Your task to perform on an android device: Clear all items from cart on bestbuy. Search for "amazon basics triple a" on bestbuy, select the first entry, and add it to the cart. Image 0: 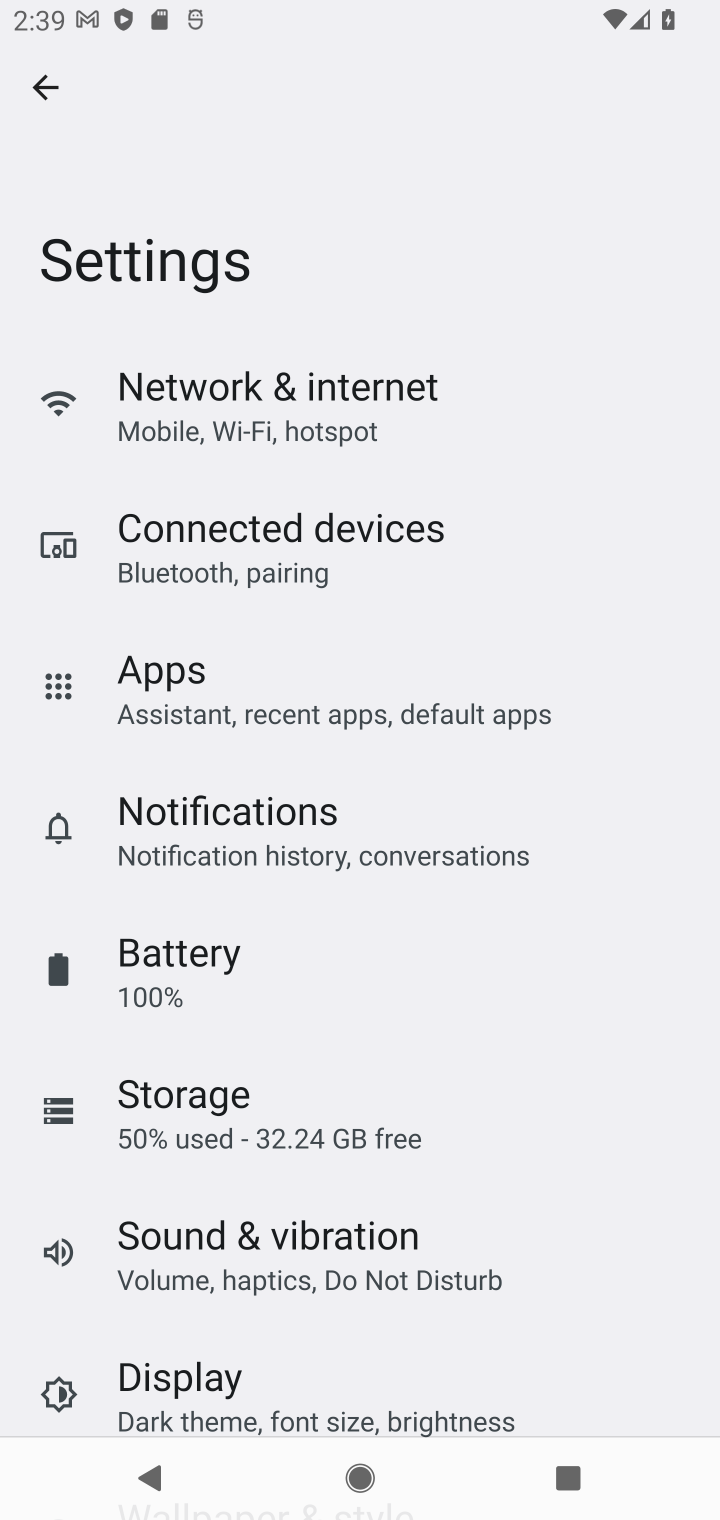
Step 0: press home button
Your task to perform on an android device: Clear all items from cart on bestbuy. Search for "amazon basics triple a" on bestbuy, select the first entry, and add it to the cart. Image 1: 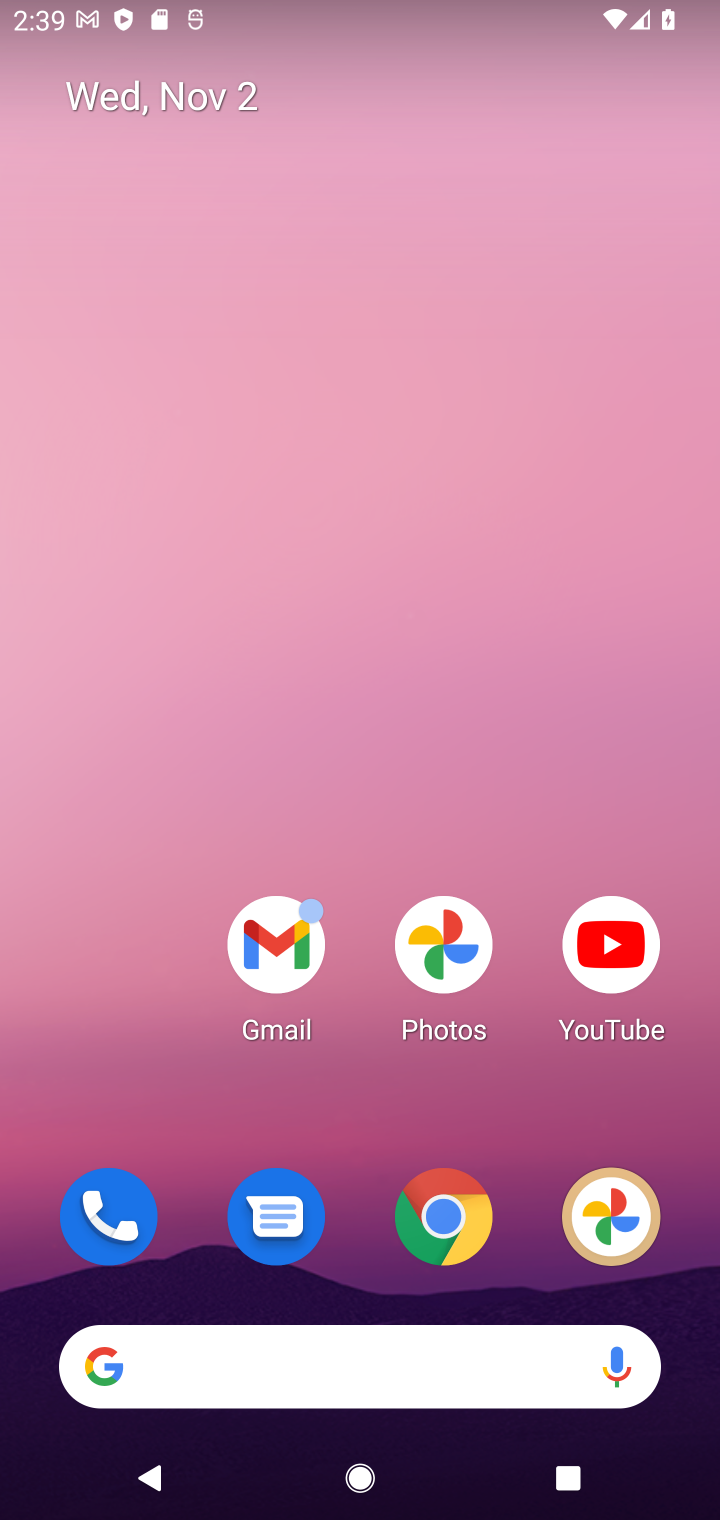
Step 1: click (450, 1212)
Your task to perform on an android device: Clear all items from cart on bestbuy. Search for "amazon basics triple a" on bestbuy, select the first entry, and add it to the cart. Image 2: 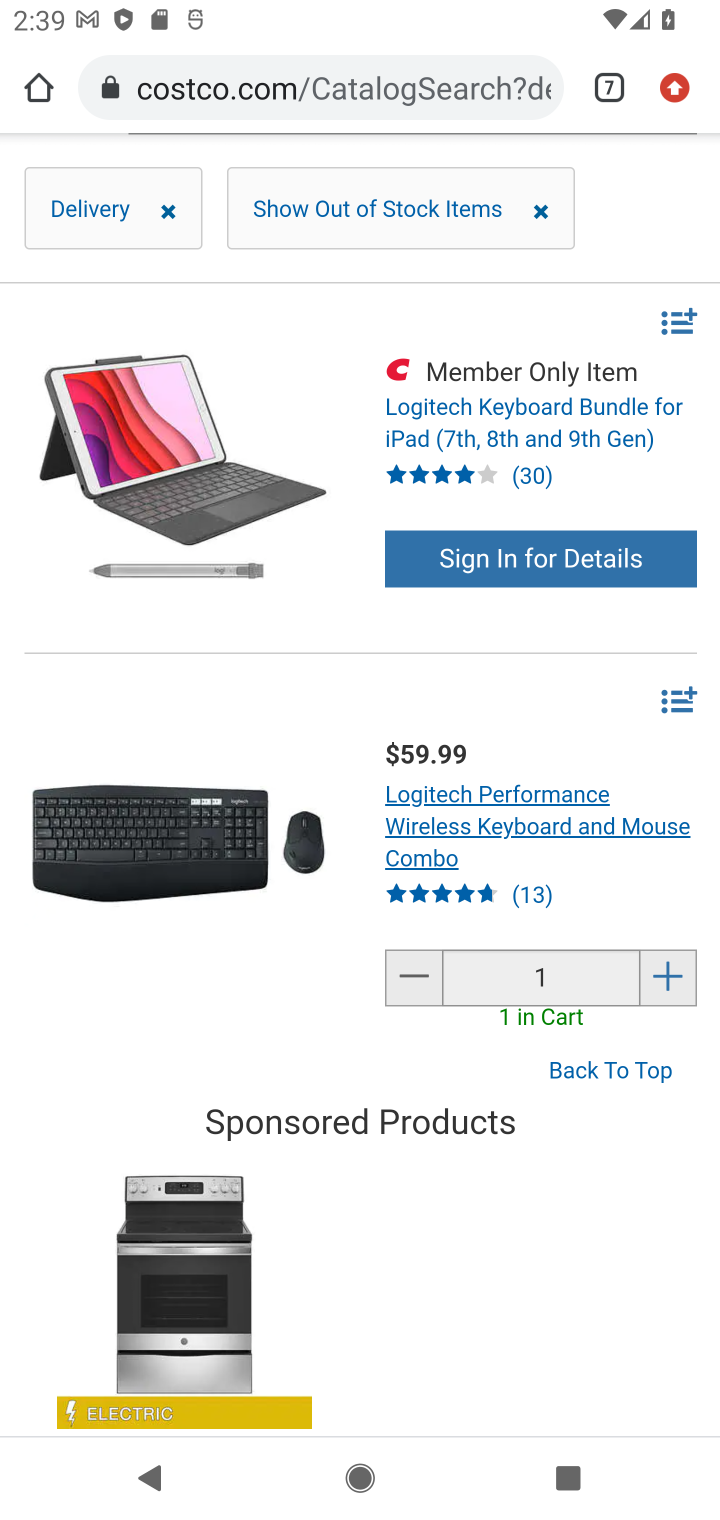
Step 2: click (612, 83)
Your task to perform on an android device: Clear all items from cart on bestbuy. Search for "amazon basics triple a" on bestbuy, select the first entry, and add it to the cart. Image 3: 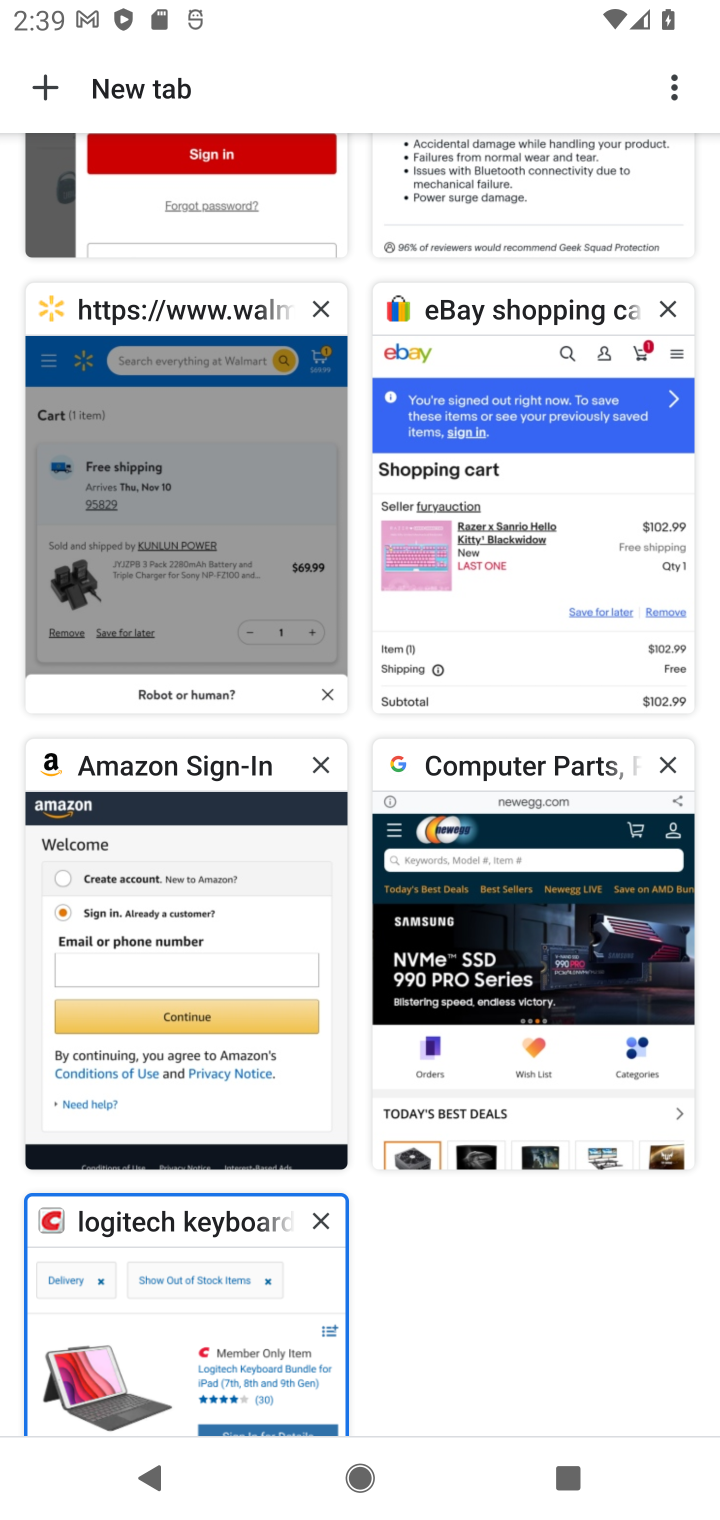
Step 3: click (491, 192)
Your task to perform on an android device: Clear all items from cart on bestbuy. Search for "amazon basics triple a" on bestbuy, select the first entry, and add it to the cart. Image 4: 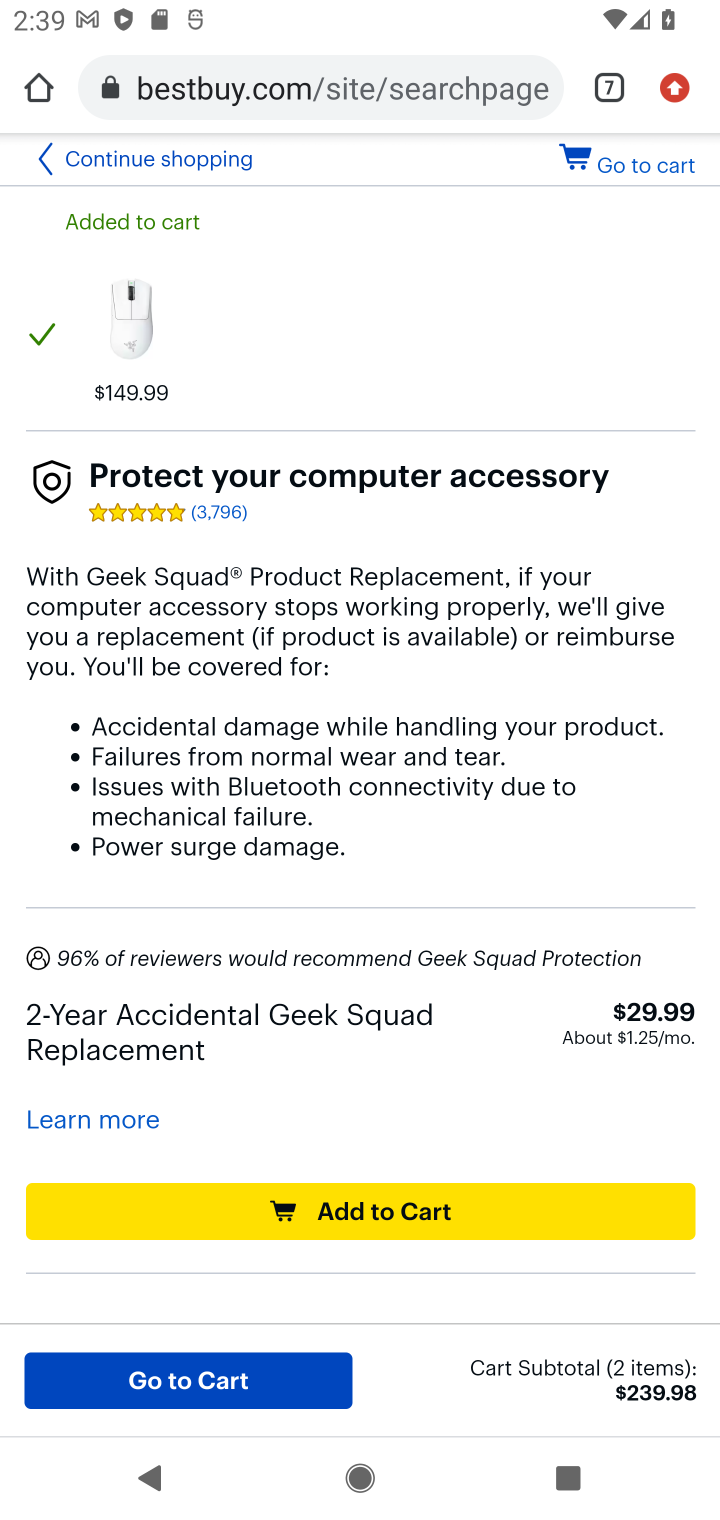
Step 4: click (150, 152)
Your task to perform on an android device: Clear all items from cart on bestbuy. Search for "amazon basics triple a" on bestbuy, select the first entry, and add it to the cart. Image 5: 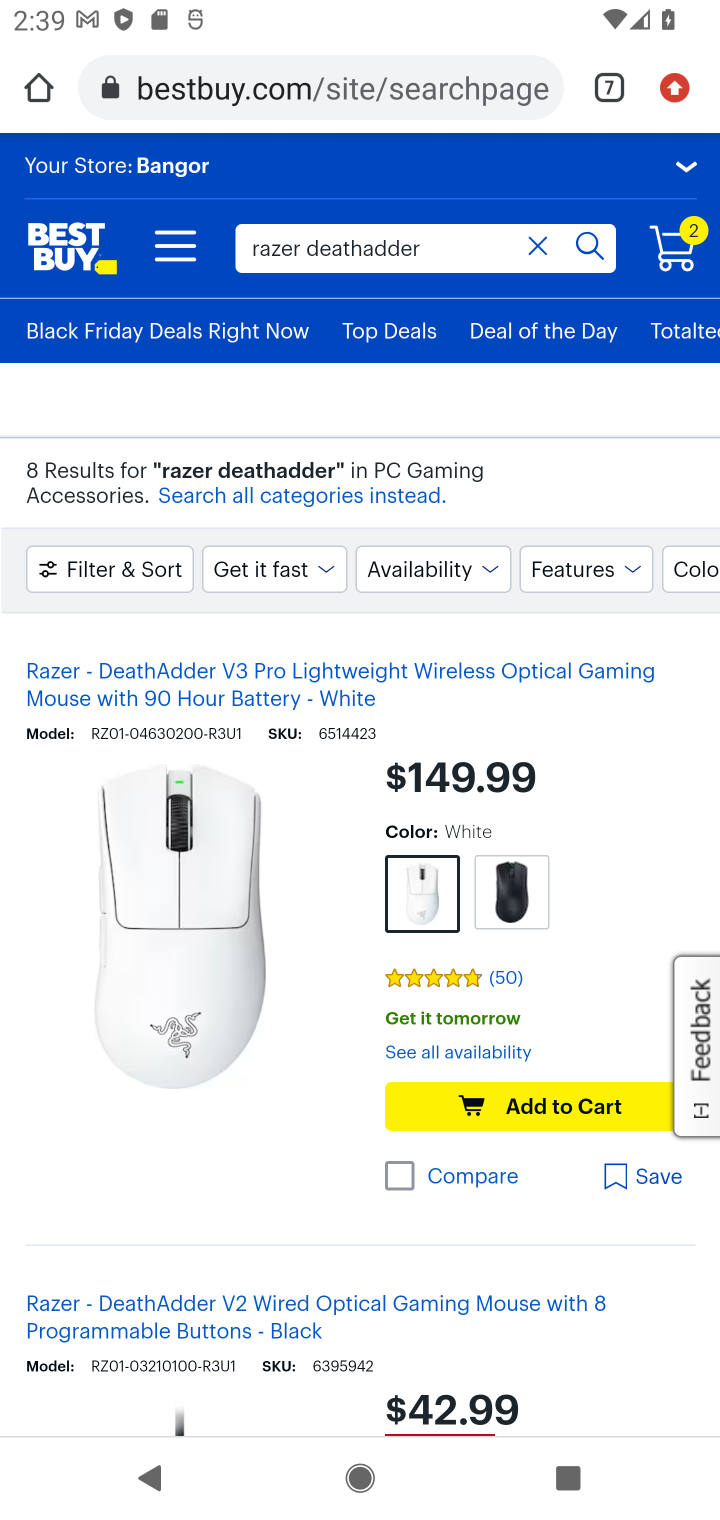
Step 5: click (537, 249)
Your task to perform on an android device: Clear all items from cart on bestbuy. Search for "amazon basics triple a" on bestbuy, select the first entry, and add it to the cart. Image 6: 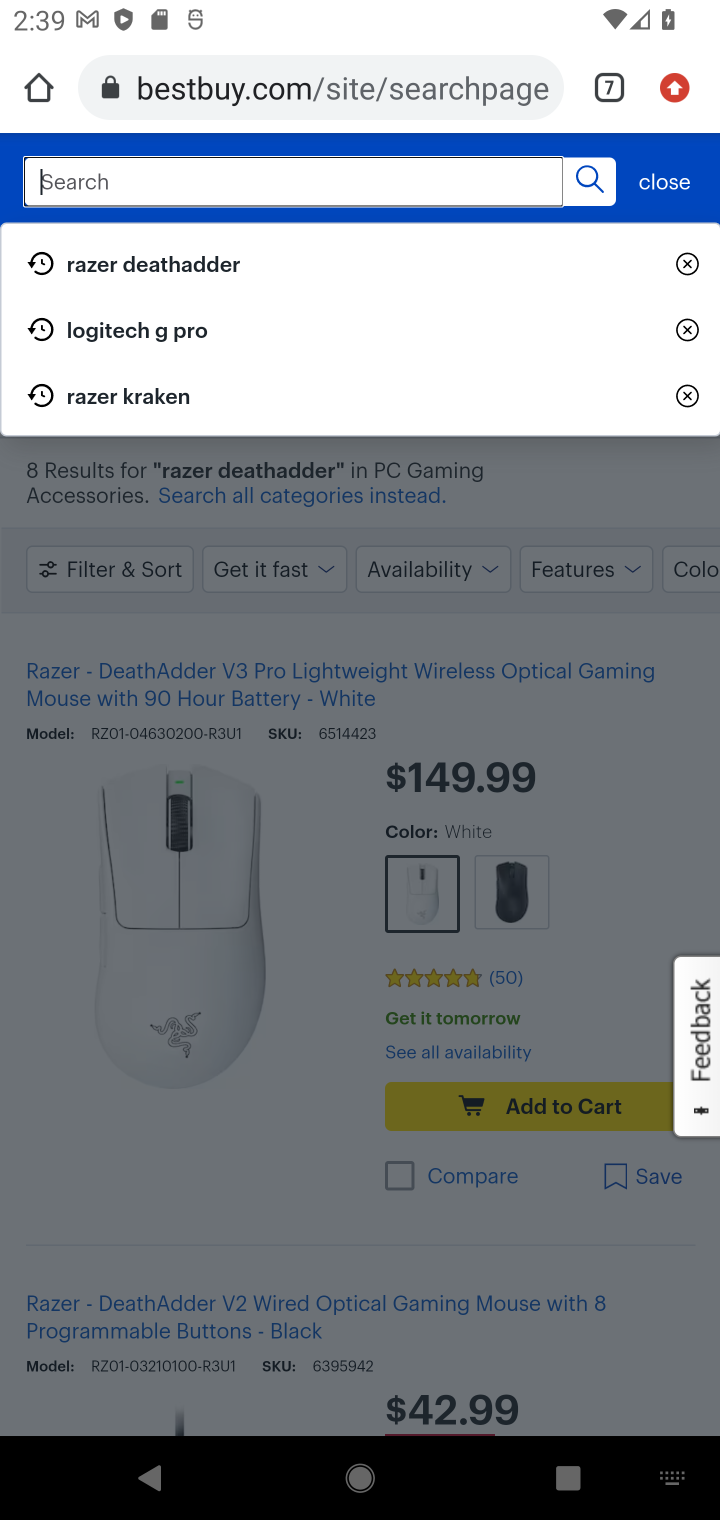
Step 6: type "amazon basics triple a battery"
Your task to perform on an android device: Clear all items from cart on bestbuy. Search for "amazon basics triple a" on bestbuy, select the first entry, and add it to the cart. Image 7: 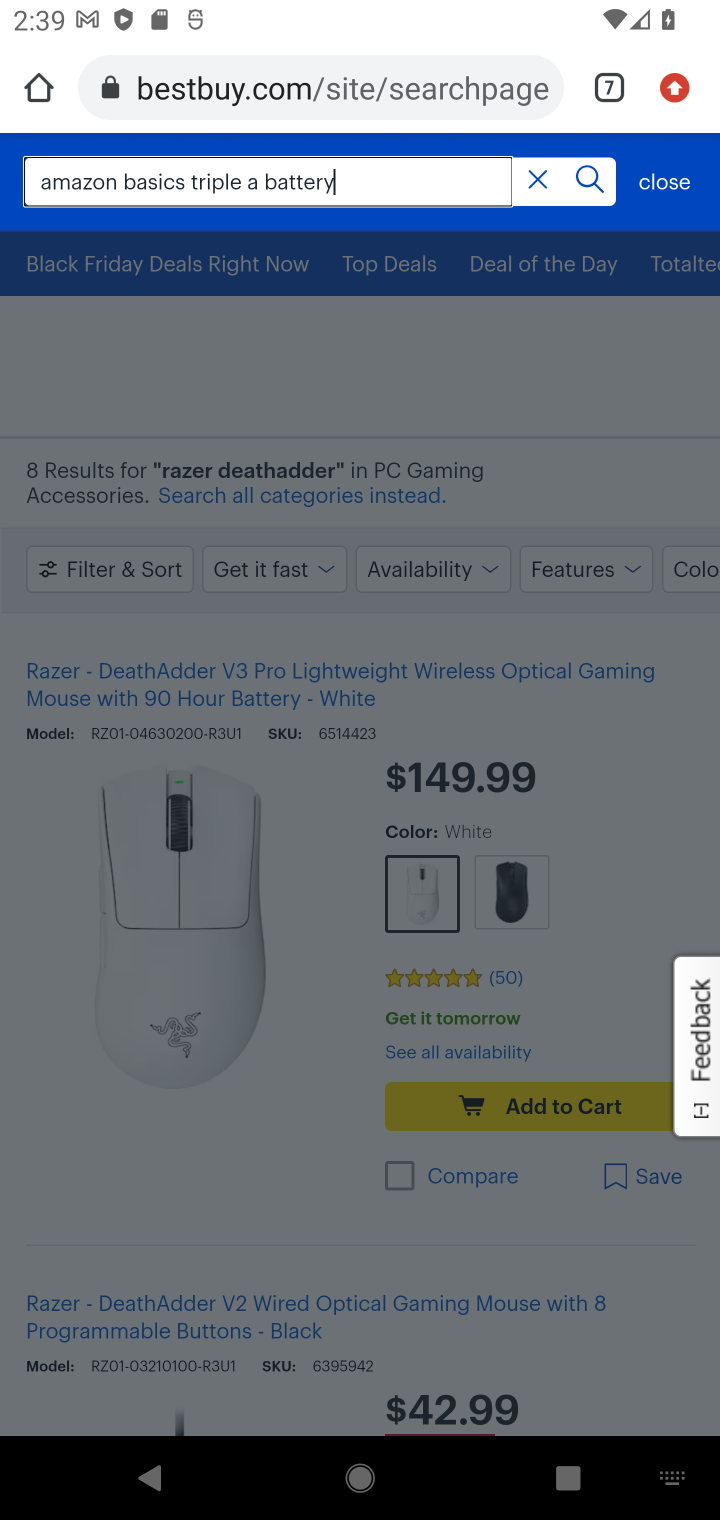
Step 7: click (596, 180)
Your task to perform on an android device: Clear all items from cart on bestbuy. Search for "amazon basics triple a" on bestbuy, select the first entry, and add it to the cart. Image 8: 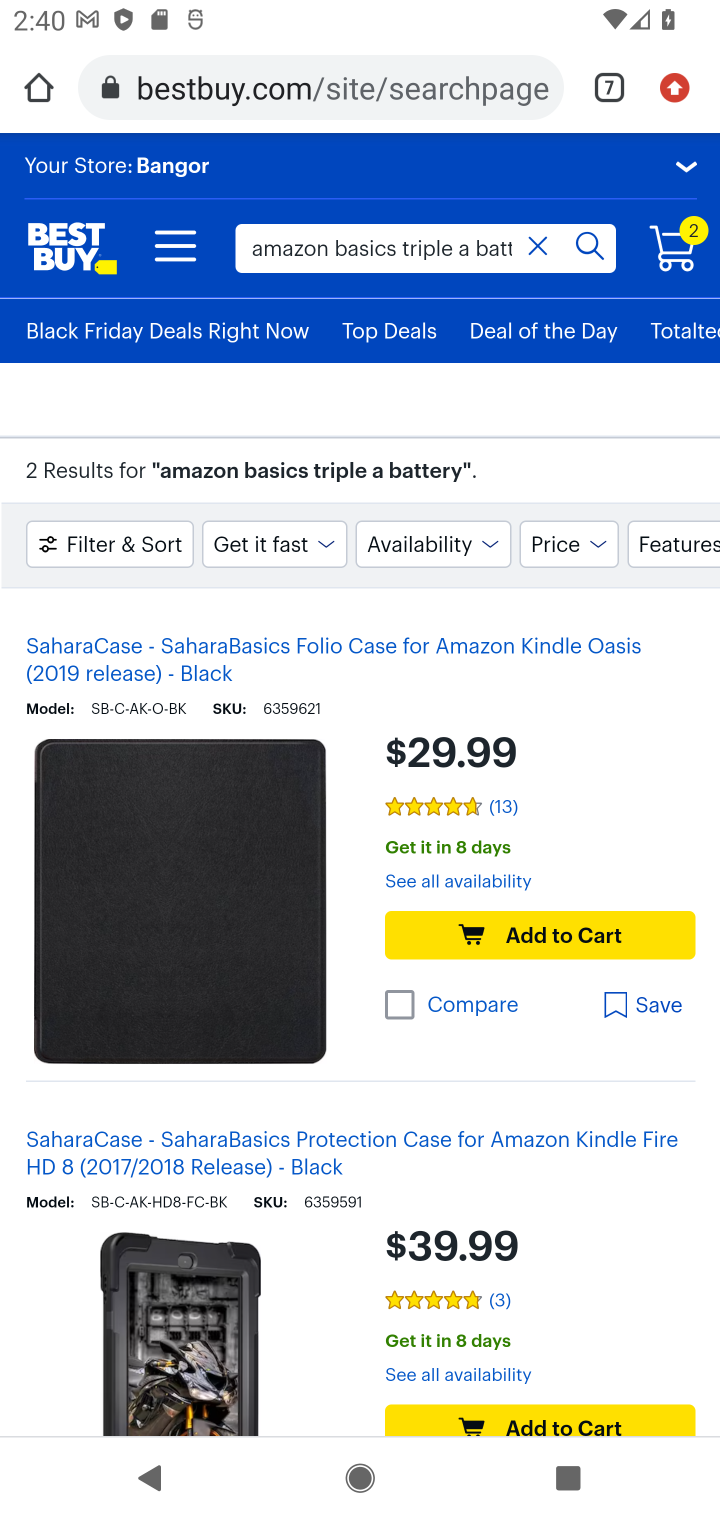
Step 8: click (529, 923)
Your task to perform on an android device: Clear all items from cart on bestbuy. Search for "amazon basics triple a" on bestbuy, select the first entry, and add it to the cart. Image 9: 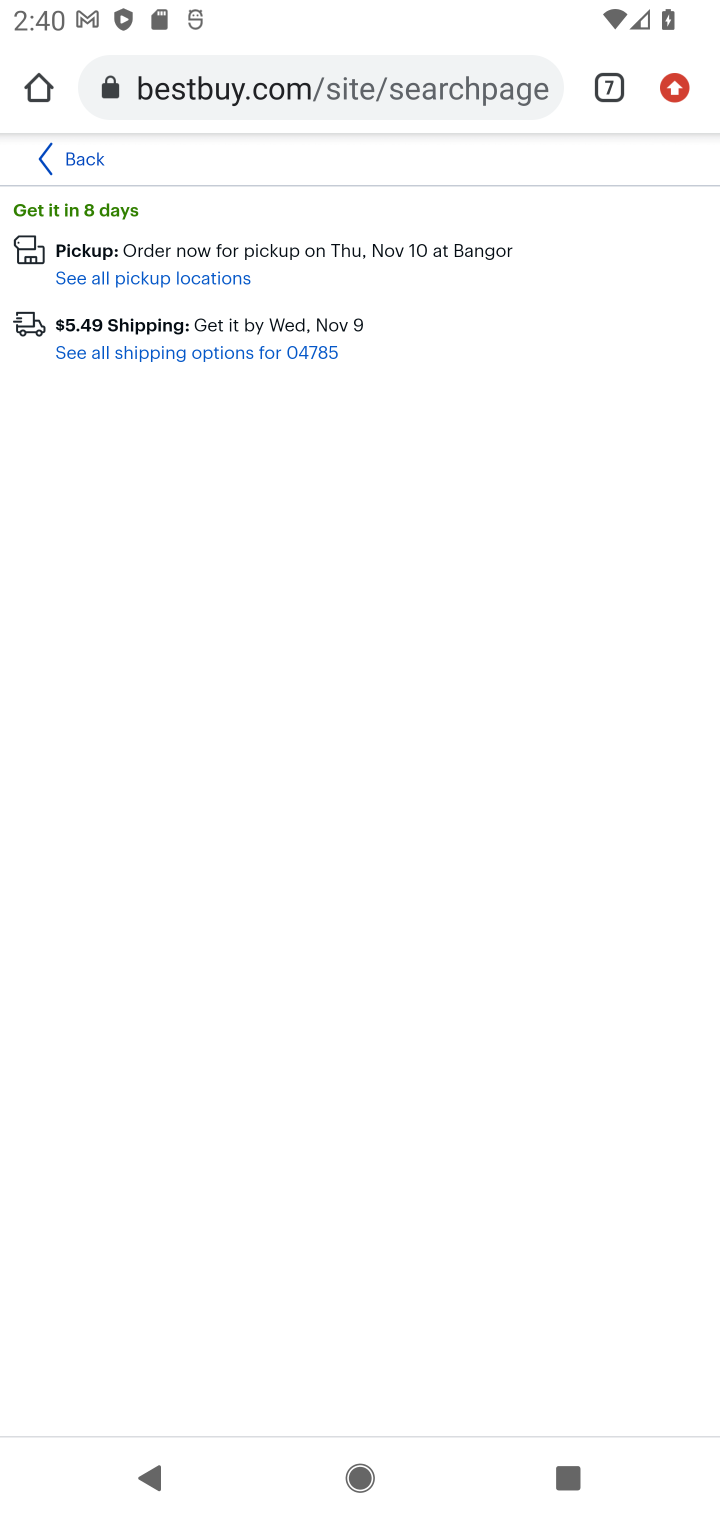
Step 9: task complete